Your task to perform on an android device: change timer sound Image 0: 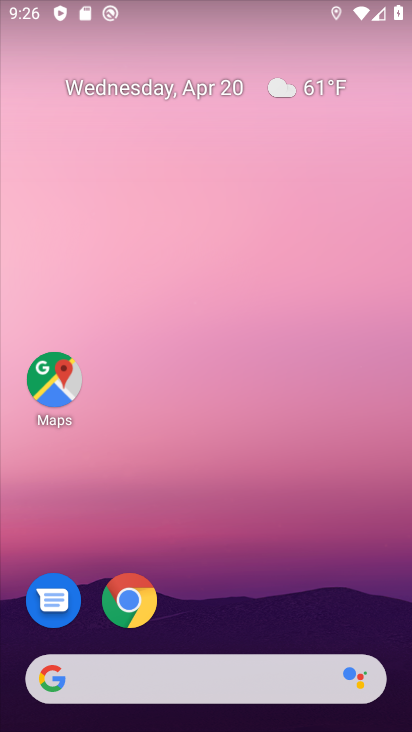
Step 0: drag from (367, 624) to (318, 1)
Your task to perform on an android device: change timer sound Image 1: 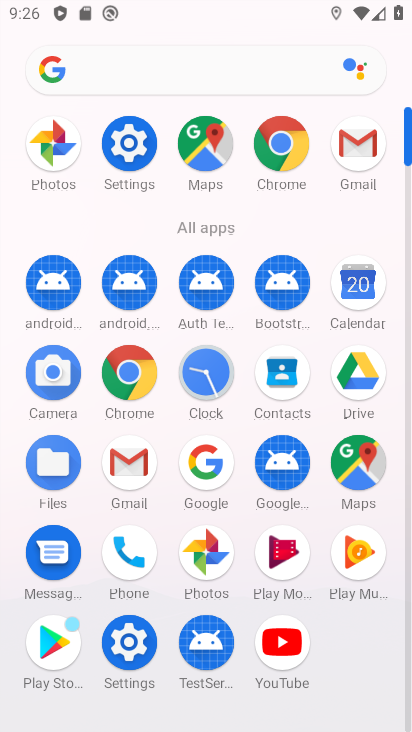
Step 1: click (204, 378)
Your task to perform on an android device: change timer sound Image 2: 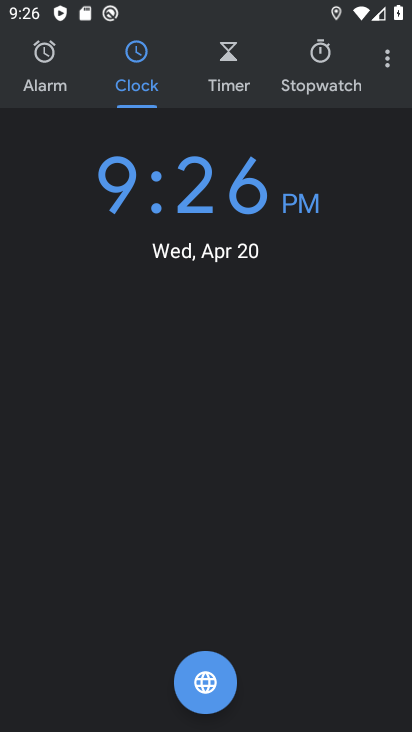
Step 2: click (391, 65)
Your task to perform on an android device: change timer sound Image 3: 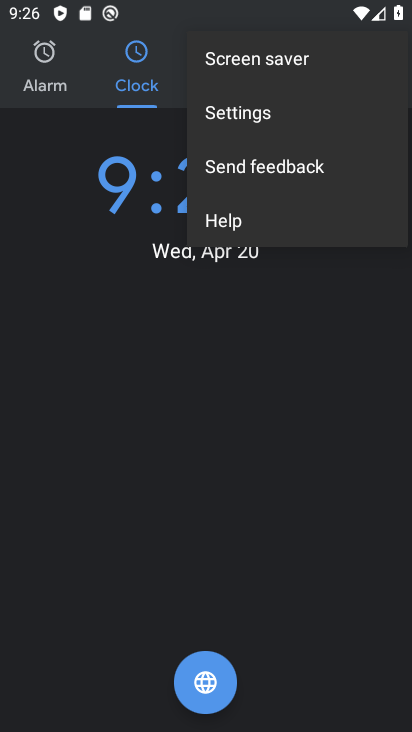
Step 3: click (251, 116)
Your task to perform on an android device: change timer sound Image 4: 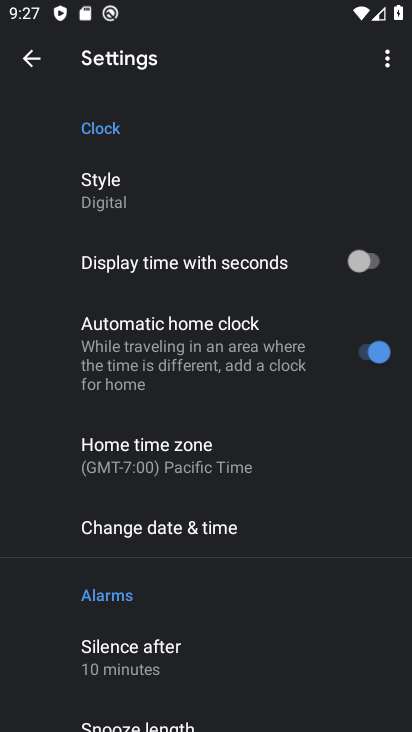
Step 4: drag from (284, 618) to (276, 208)
Your task to perform on an android device: change timer sound Image 5: 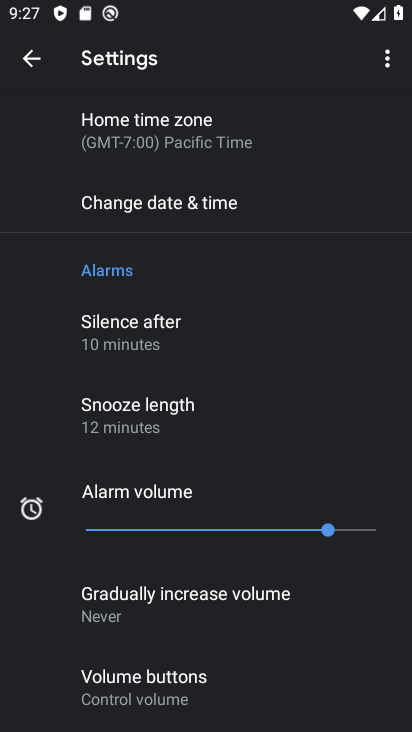
Step 5: drag from (281, 442) to (255, 83)
Your task to perform on an android device: change timer sound Image 6: 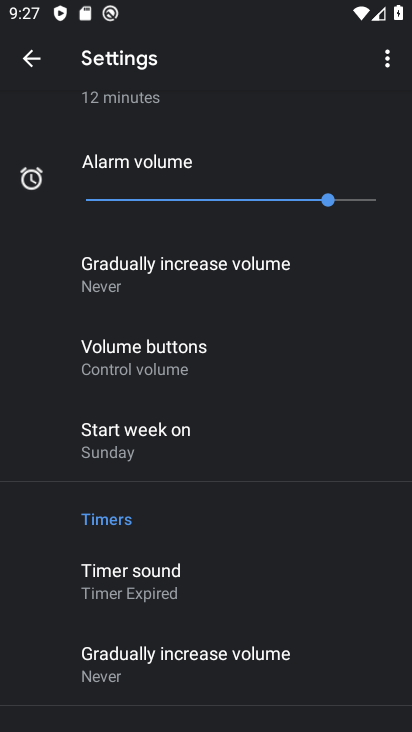
Step 6: drag from (283, 470) to (278, 163)
Your task to perform on an android device: change timer sound Image 7: 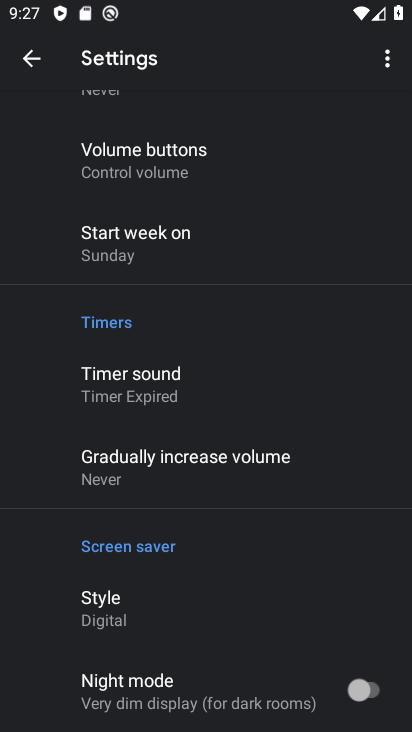
Step 7: click (130, 388)
Your task to perform on an android device: change timer sound Image 8: 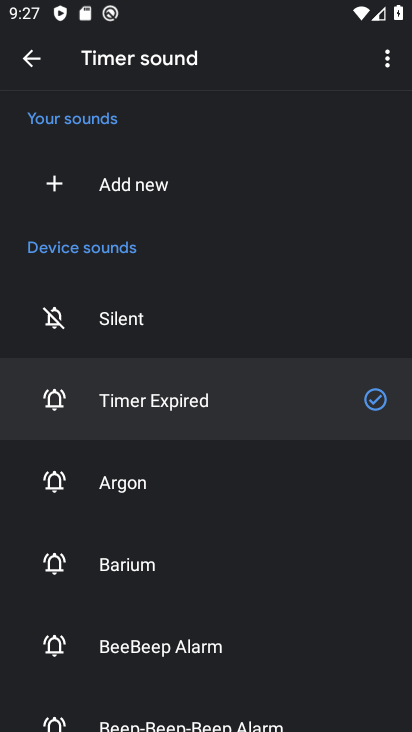
Step 8: click (111, 569)
Your task to perform on an android device: change timer sound Image 9: 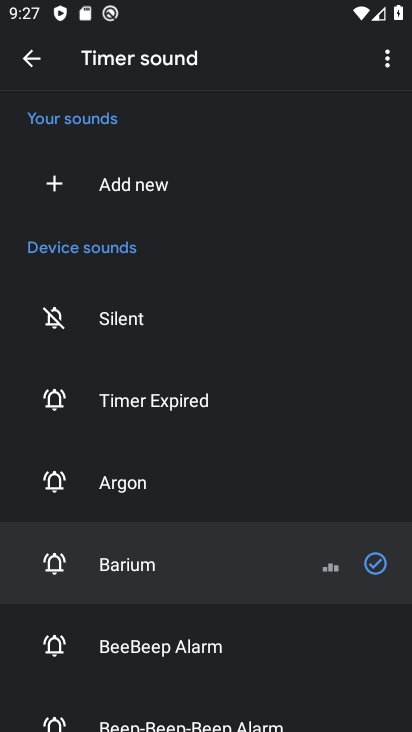
Step 9: task complete